Your task to perform on an android device: Open Google Chrome and open the bookmarks view Image 0: 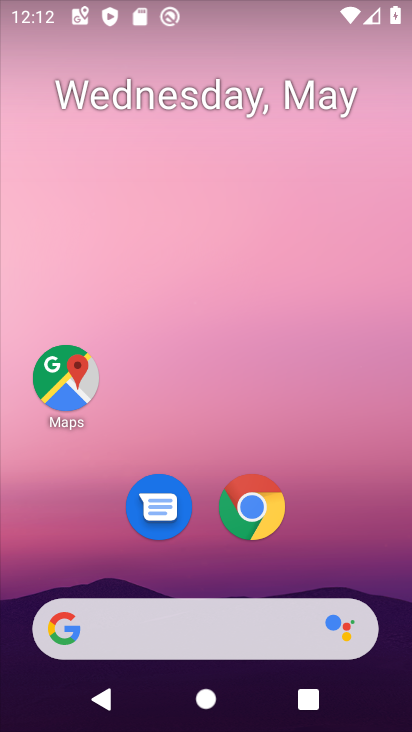
Step 0: drag from (332, 577) to (324, 281)
Your task to perform on an android device: Open Google Chrome and open the bookmarks view Image 1: 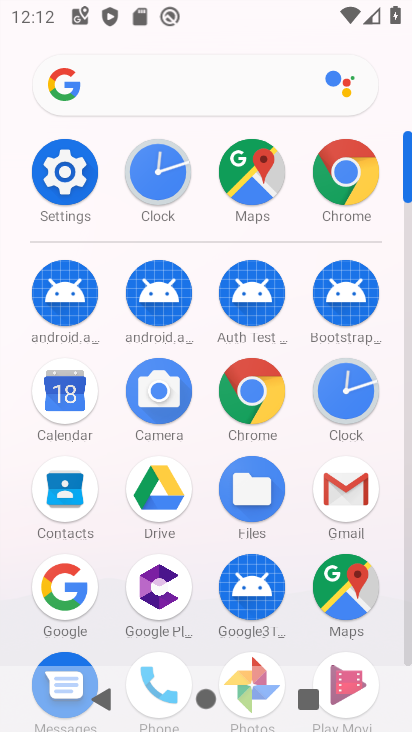
Step 1: click (254, 388)
Your task to perform on an android device: Open Google Chrome and open the bookmarks view Image 2: 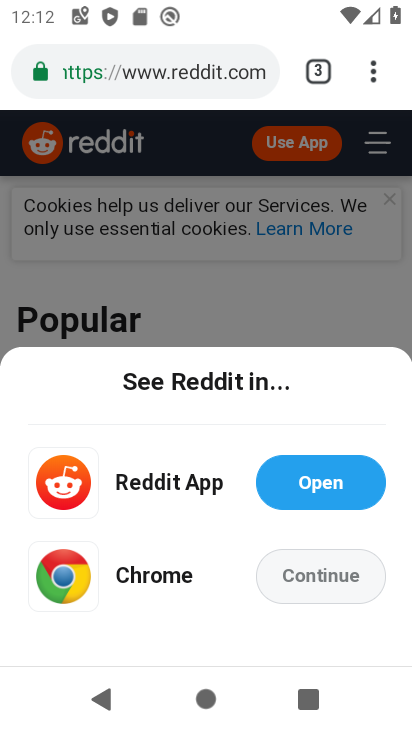
Step 2: click (365, 75)
Your task to perform on an android device: Open Google Chrome and open the bookmarks view Image 3: 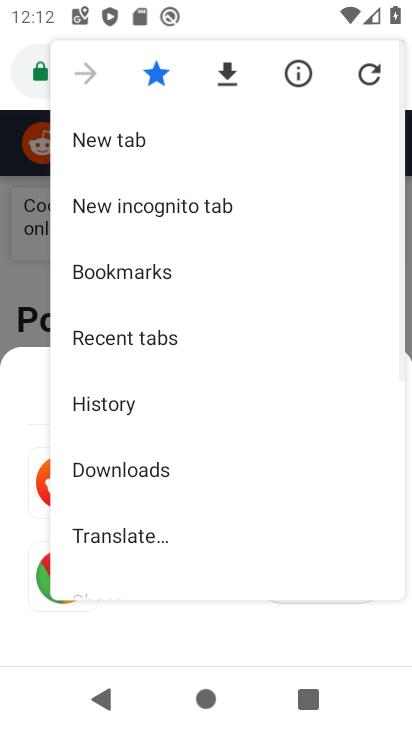
Step 3: click (155, 277)
Your task to perform on an android device: Open Google Chrome and open the bookmarks view Image 4: 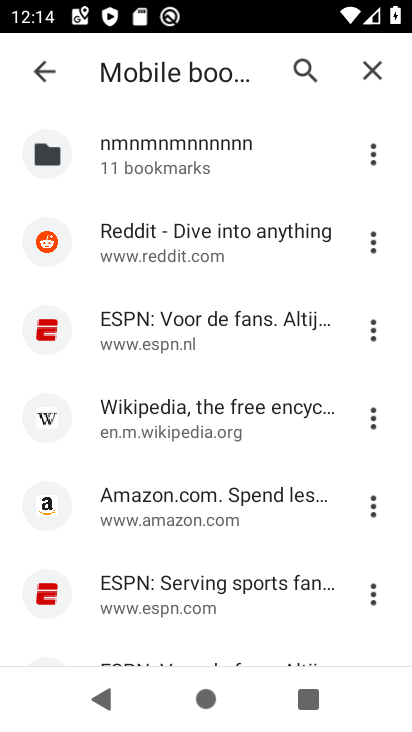
Step 4: task complete